Your task to perform on an android device: Open Google Chrome Image 0: 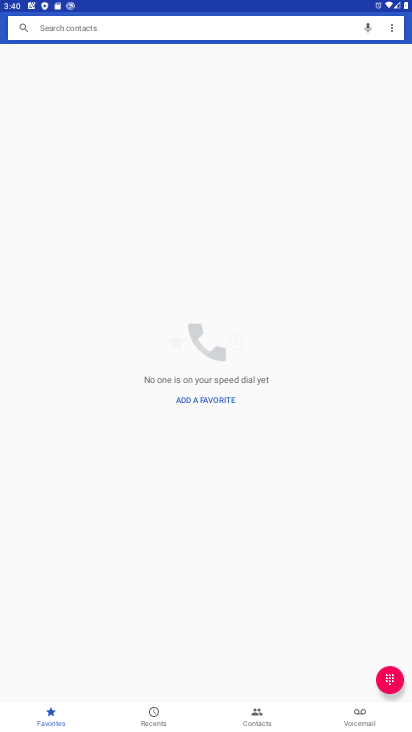
Step 0: press home button
Your task to perform on an android device: Open Google Chrome Image 1: 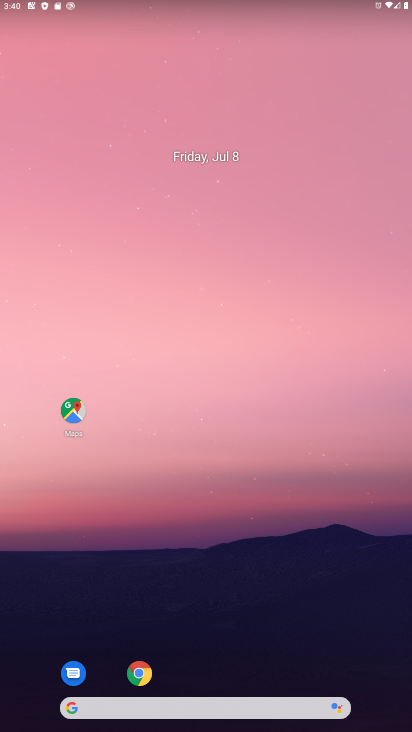
Step 1: click (142, 677)
Your task to perform on an android device: Open Google Chrome Image 2: 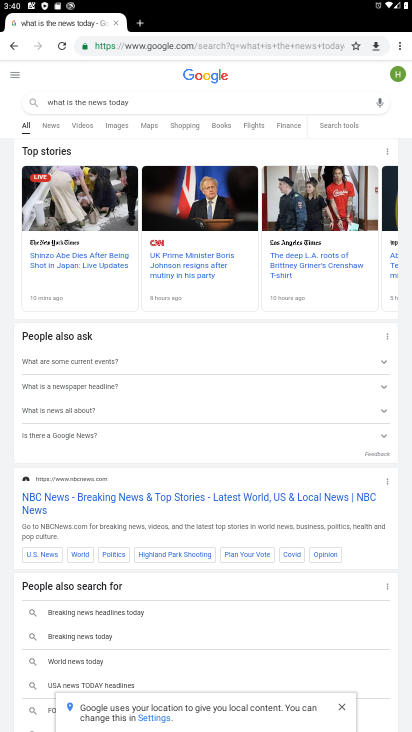
Step 2: task complete